Your task to perform on an android device: Go to Google maps Image 0: 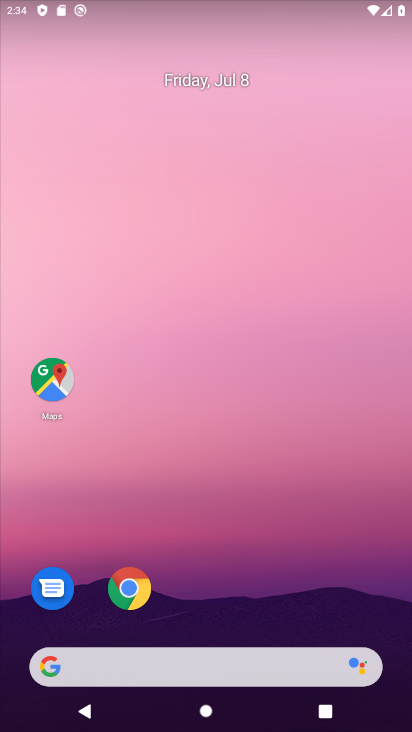
Step 0: click (45, 390)
Your task to perform on an android device: Go to Google maps Image 1: 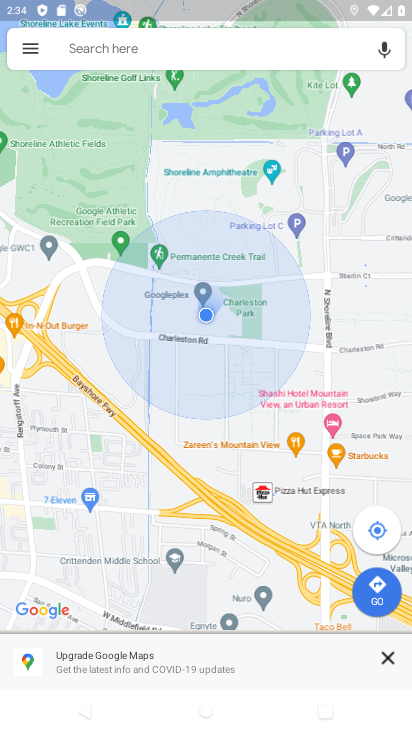
Step 1: task complete